Your task to perform on an android device: turn on location history Image 0: 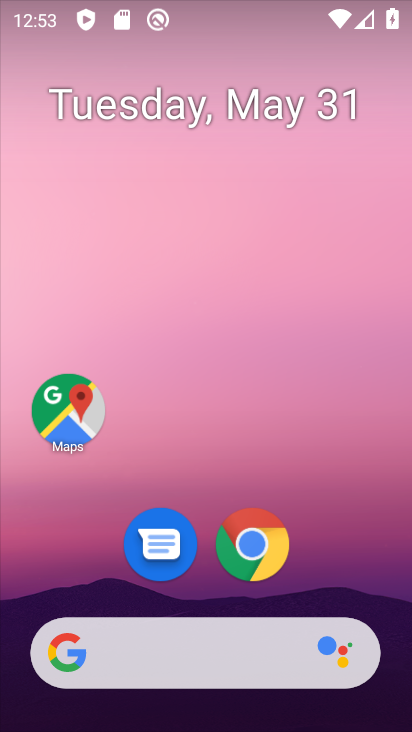
Step 0: drag from (207, 571) to (261, 80)
Your task to perform on an android device: turn on location history Image 1: 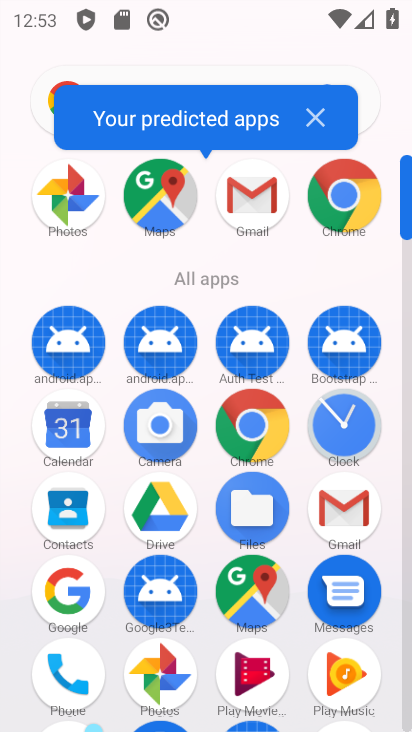
Step 1: click (189, 205)
Your task to perform on an android device: turn on location history Image 2: 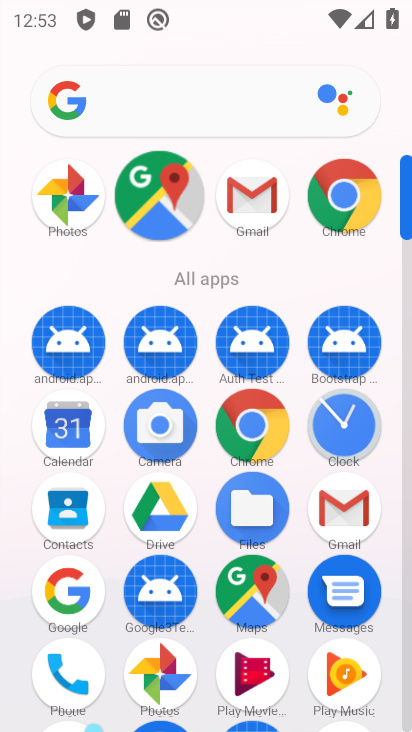
Step 2: drag from (205, 566) to (225, 225)
Your task to perform on an android device: turn on location history Image 3: 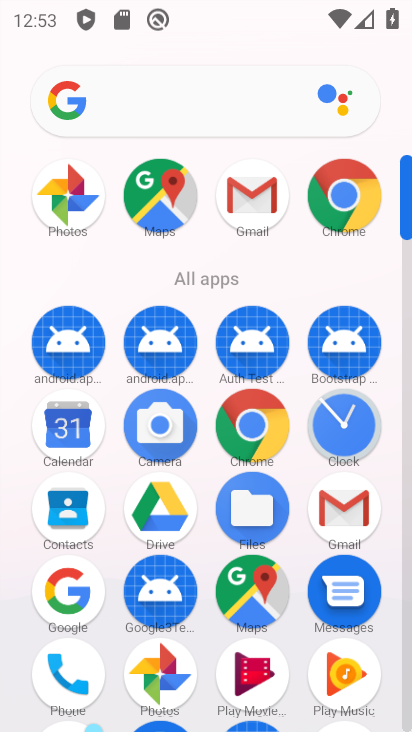
Step 3: drag from (191, 589) to (204, 231)
Your task to perform on an android device: turn on location history Image 4: 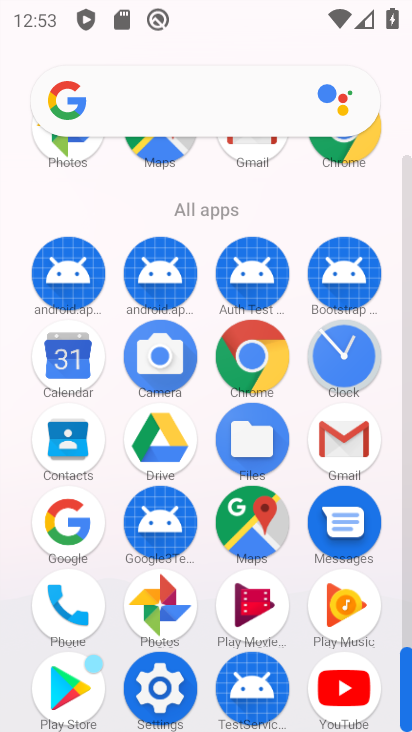
Step 4: click (140, 679)
Your task to perform on an android device: turn on location history Image 5: 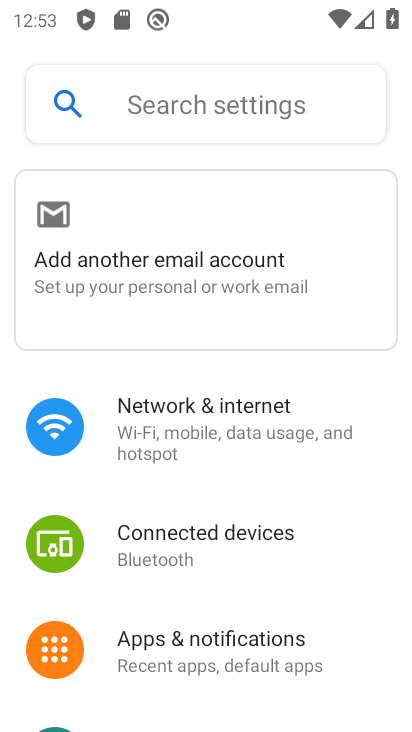
Step 5: drag from (205, 648) to (270, 82)
Your task to perform on an android device: turn on location history Image 6: 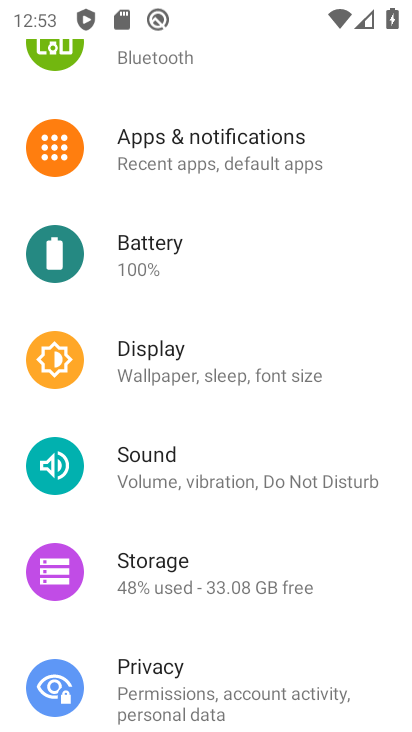
Step 6: drag from (165, 642) to (194, 138)
Your task to perform on an android device: turn on location history Image 7: 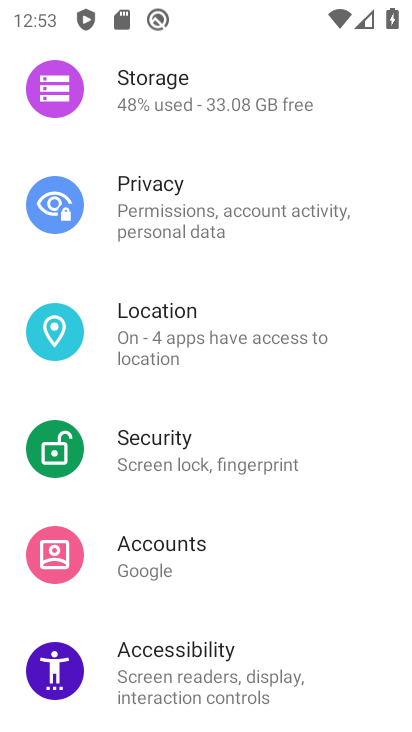
Step 7: click (141, 354)
Your task to perform on an android device: turn on location history Image 8: 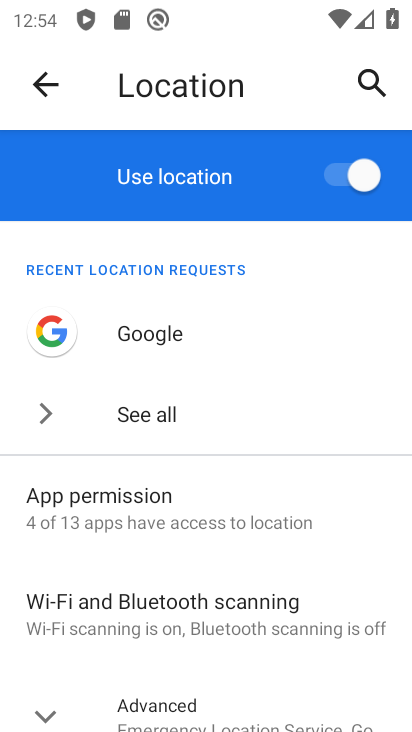
Step 8: click (168, 703)
Your task to perform on an android device: turn on location history Image 9: 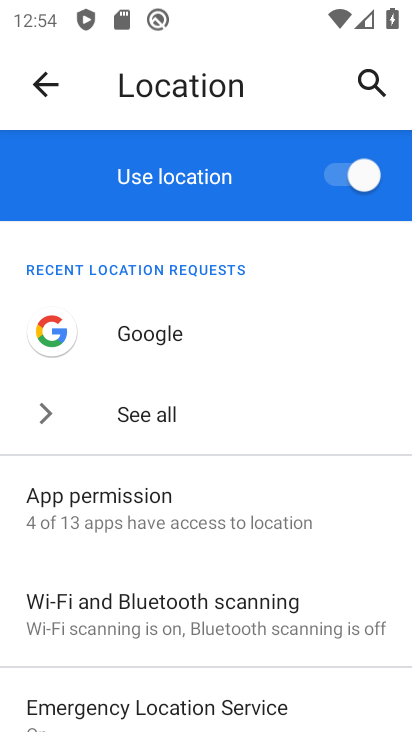
Step 9: drag from (170, 697) to (166, 313)
Your task to perform on an android device: turn on location history Image 10: 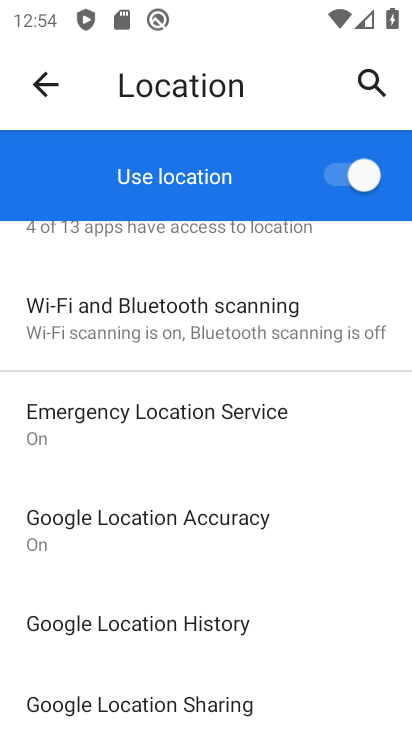
Step 10: click (205, 614)
Your task to perform on an android device: turn on location history Image 11: 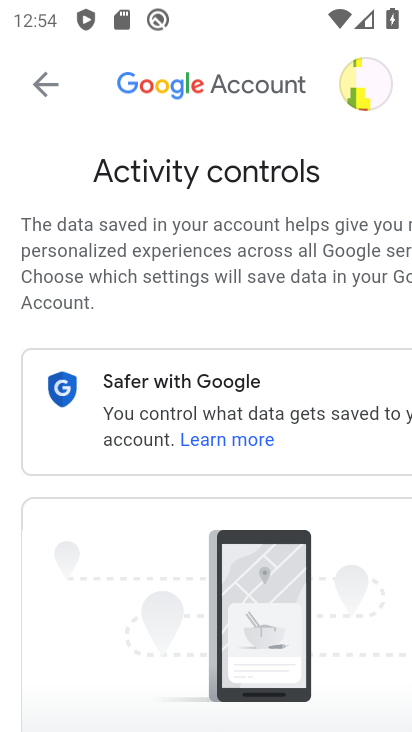
Step 11: task complete